Your task to perform on an android device: Check the news Image 0: 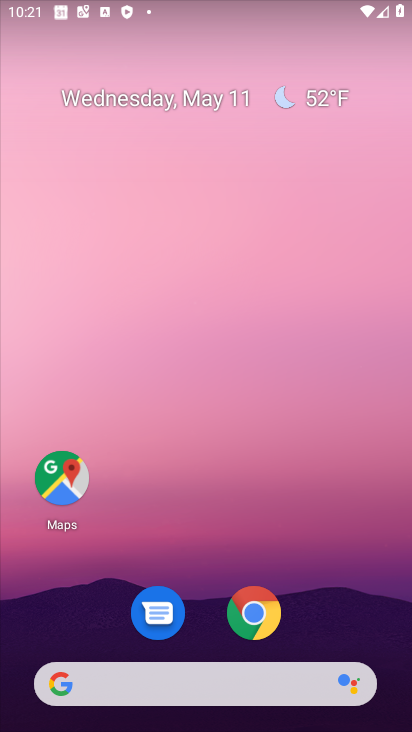
Step 0: drag from (212, 578) to (214, 247)
Your task to perform on an android device: Check the news Image 1: 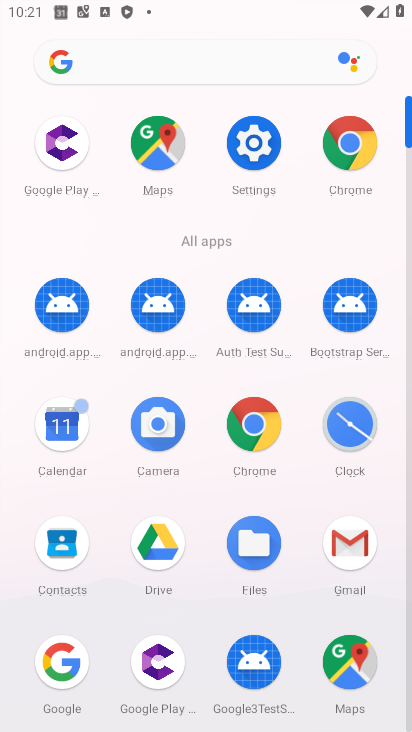
Step 1: click (74, 661)
Your task to perform on an android device: Check the news Image 2: 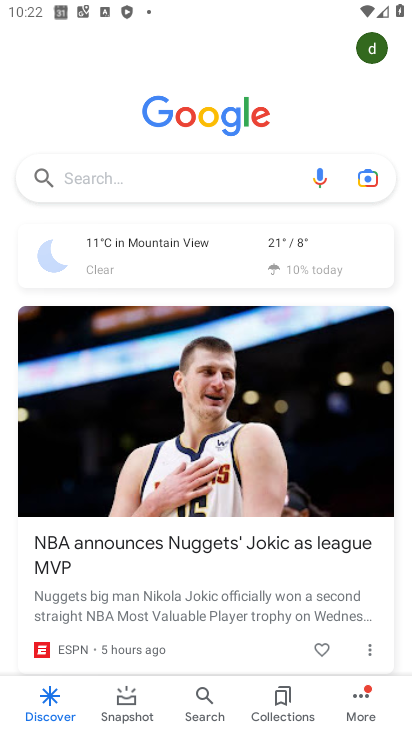
Step 2: task complete